Your task to perform on an android device: Show the shopping cart on newegg. Add asus rog to the cart on newegg Image 0: 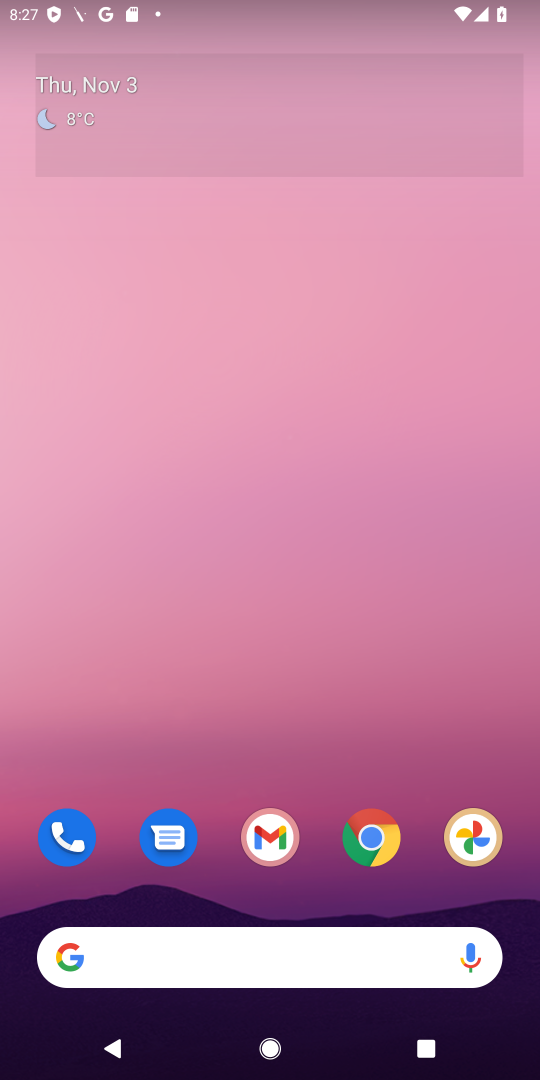
Step 0: click (367, 836)
Your task to perform on an android device: Show the shopping cart on newegg. Add asus rog to the cart on newegg Image 1: 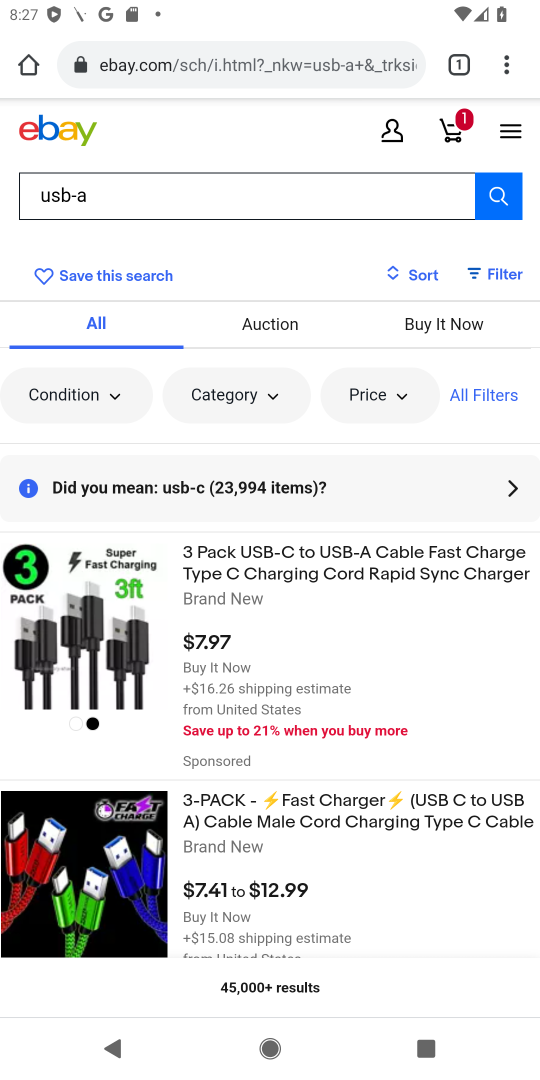
Step 1: click (237, 59)
Your task to perform on an android device: Show the shopping cart on newegg. Add asus rog to the cart on newegg Image 2: 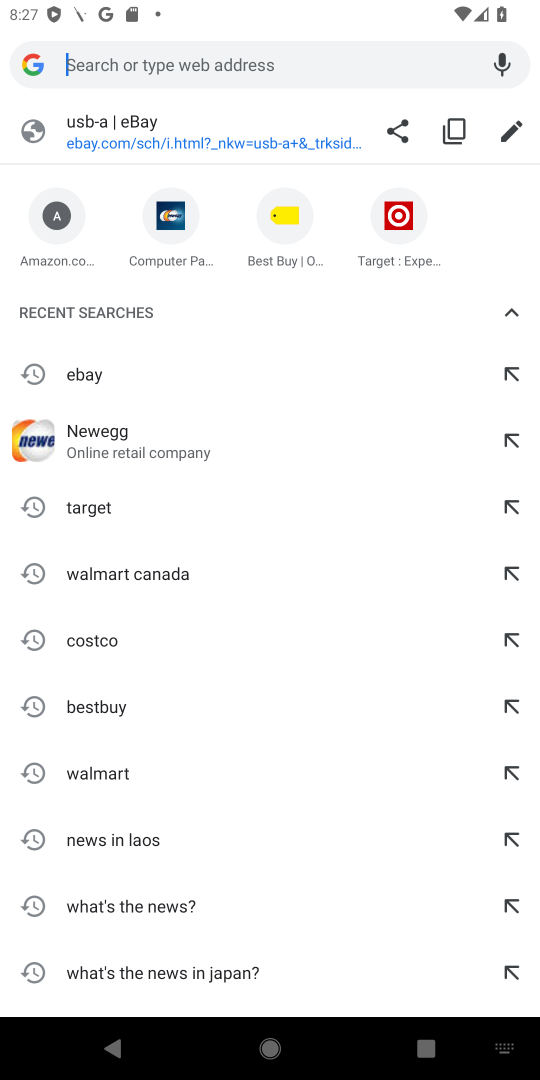
Step 2: type "newegg"
Your task to perform on an android device: Show the shopping cart on newegg. Add asus rog to the cart on newegg Image 3: 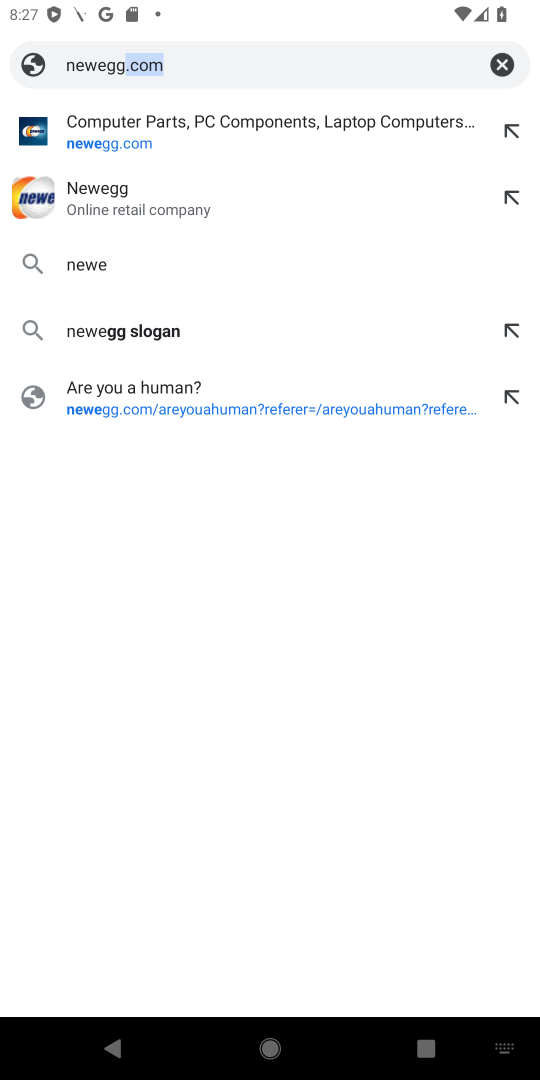
Step 3: press enter
Your task to perform on an android device: Show the shopping cart on newegg. Add asus rog to the cart on newegg Image 4: 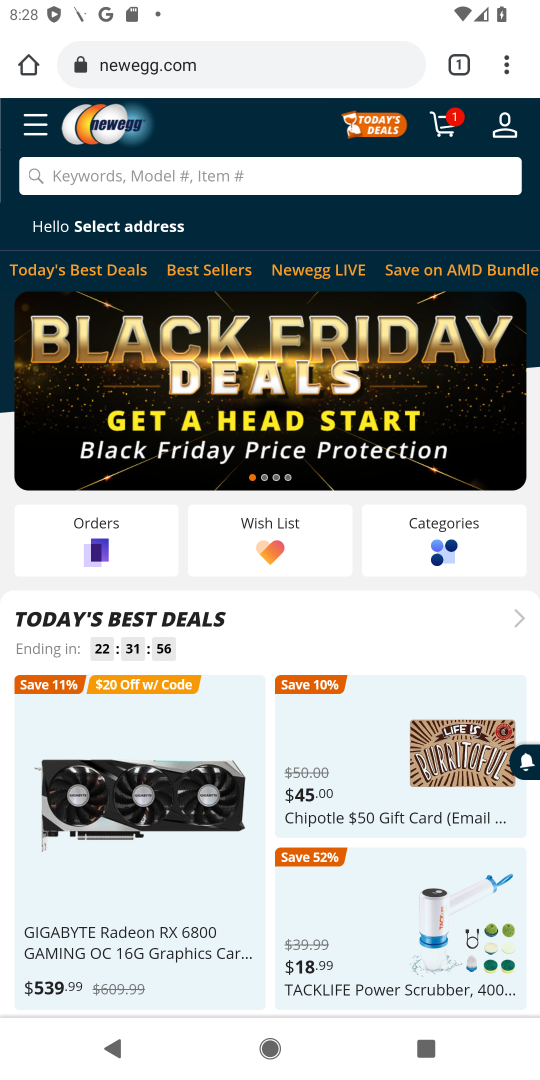
Step 4: click (365, 167)
Your task to perform on an android device: Show the shopping cart on newegg. Add asus rog to the cart on newegg Image 5: 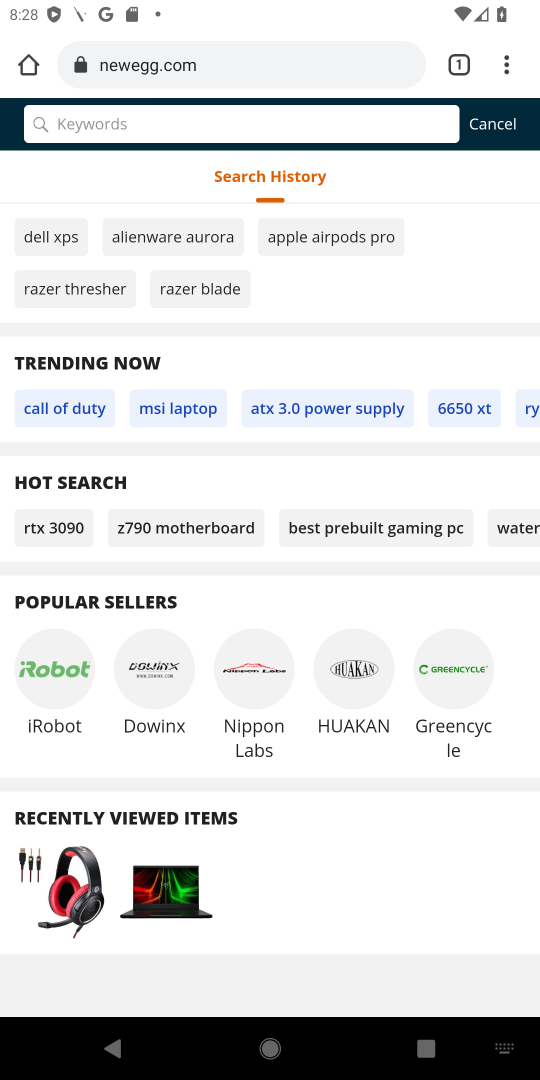
Step 5: type "asus rog"
Your task to perform on an android device: Show the shopping cart on newegg. Add asus rog to the cart on newegg Image 6: 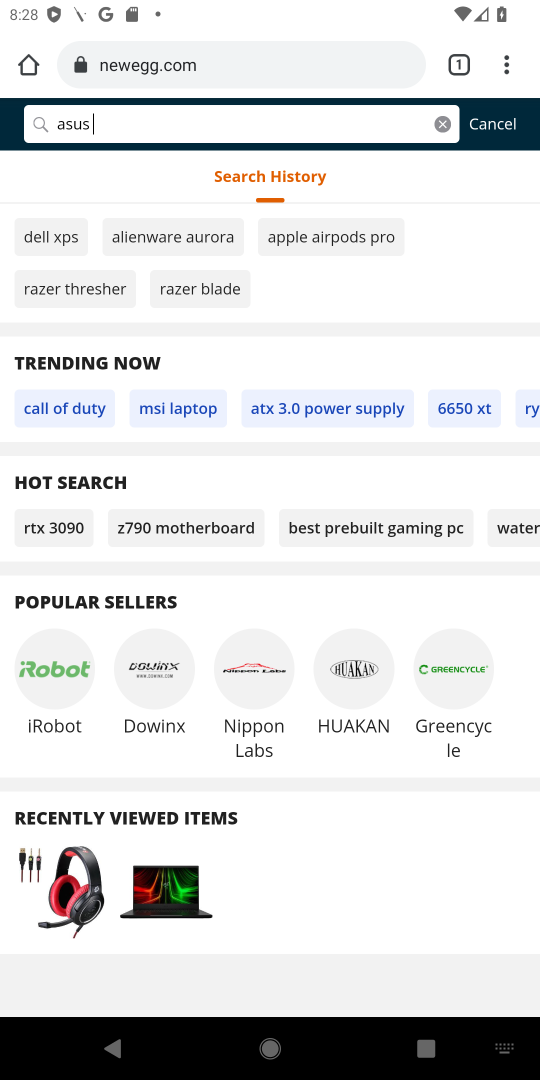
Step 6: press enter
Your task to perform on an android device: Show the shopping cart on newegg. Add asus rog to the cart on newegg Image 7: 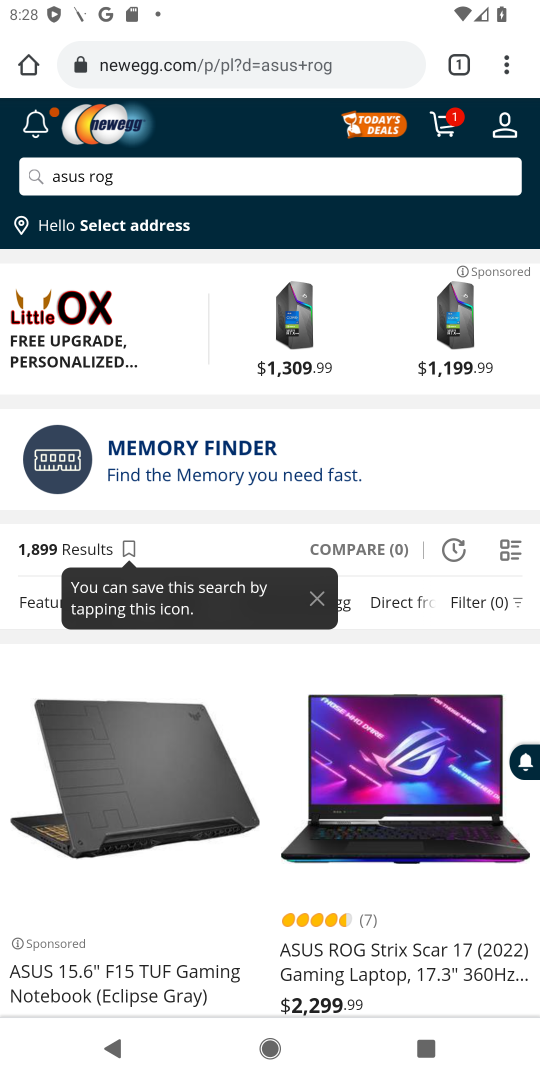
Step 7: drag from (156, 891) to (288, 596)
Your task to perform on an android device: Show the shopping cart on newegg. Add asus rog to the cart on newegg Image 8: 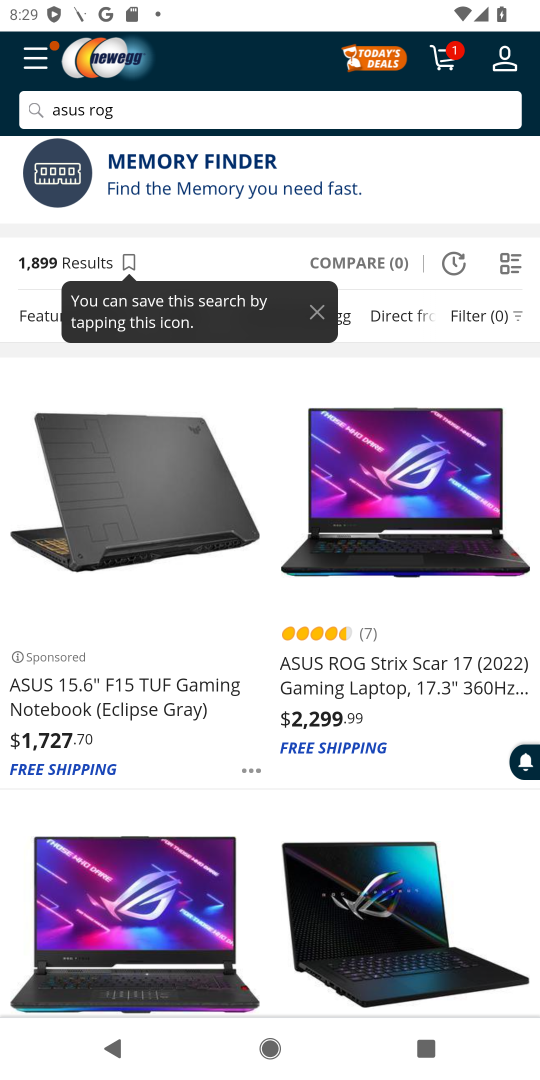
Step 8: click (417, 605)
Your task to perform on an android device: Show the shopping cart on newegg. Add asus rog to the cart on newegg Image 9: 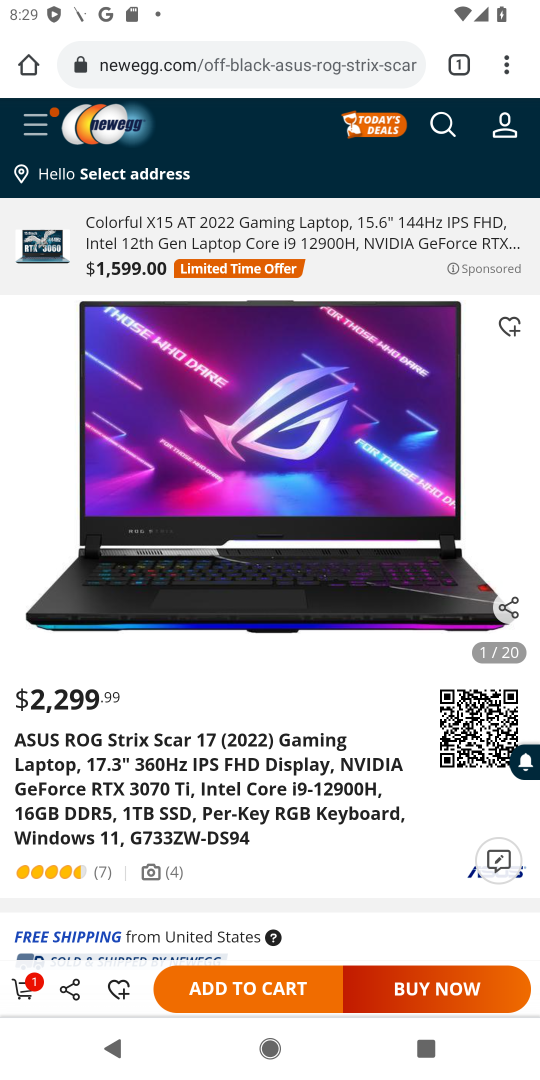
Step 9: click (247, 989)
Your task to perform on an android device: Show the shopping cart on newegg. Add asus rog to the cart on newegg Image 10: 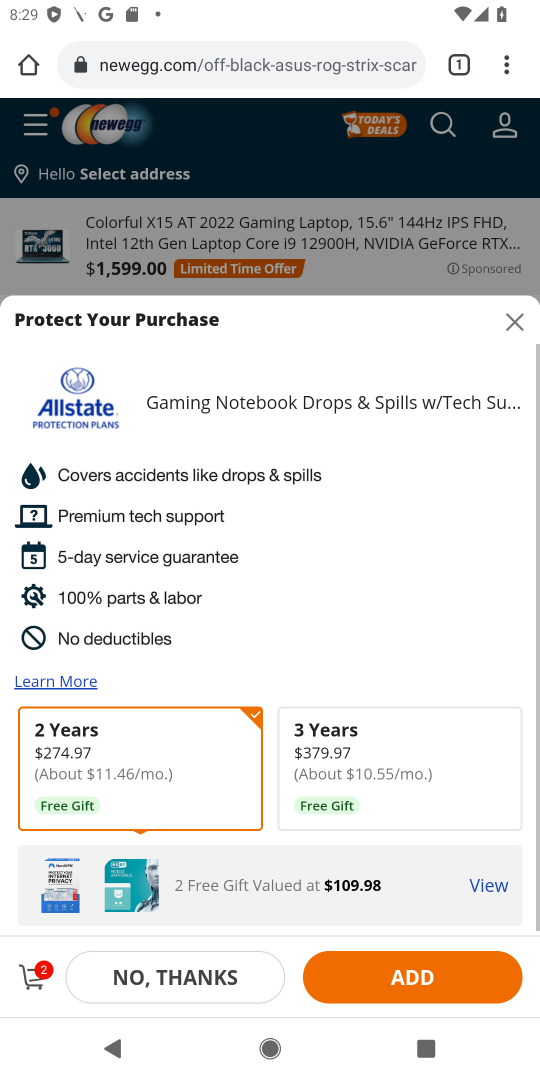
Step 10: click (230, 969)
Your task to perform on an android device: Show the shopping cart on newegg. Add asus rog to the cart on newegg Image 11: 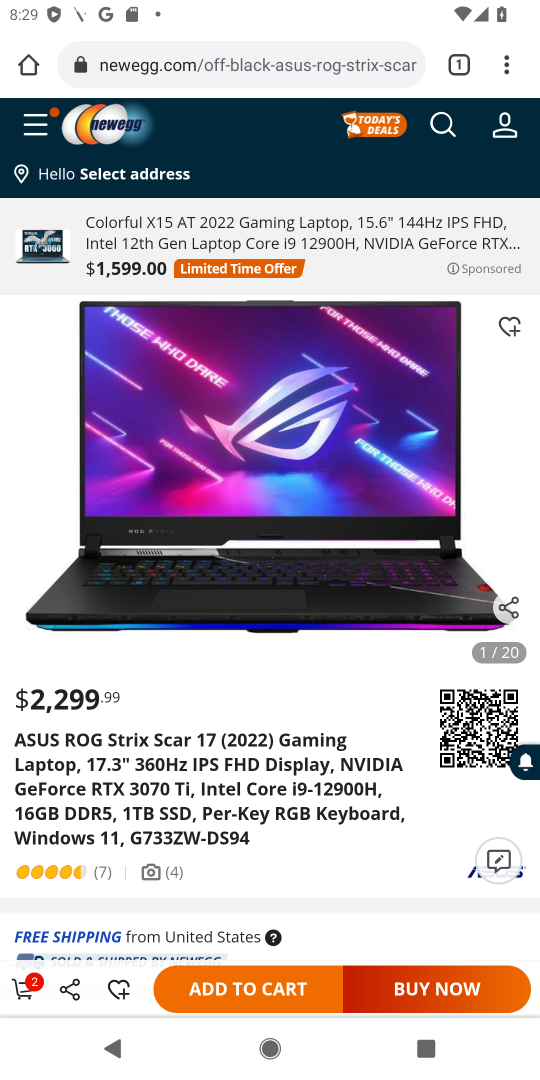
Step 11: click (30, 982)
Your task to perform on an android device: Show the shopping cart on newegg. Add asus rog to the cart on newegg Image 12: 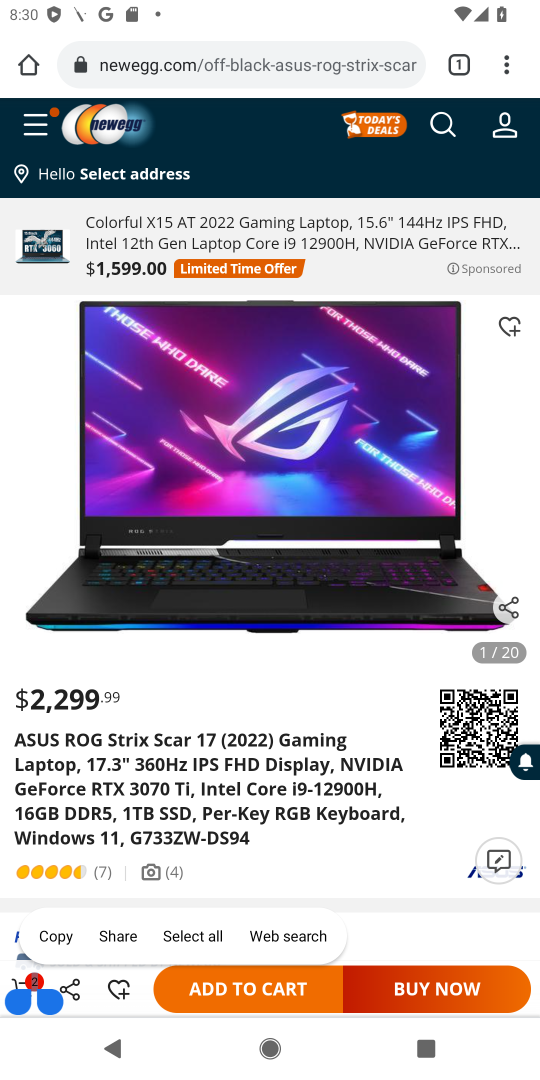
Step 12: click (30, 994)
Your task to perform on an android device: Show the shopping cart on newegg. Add asus rog to the cart on newegg Image 13: 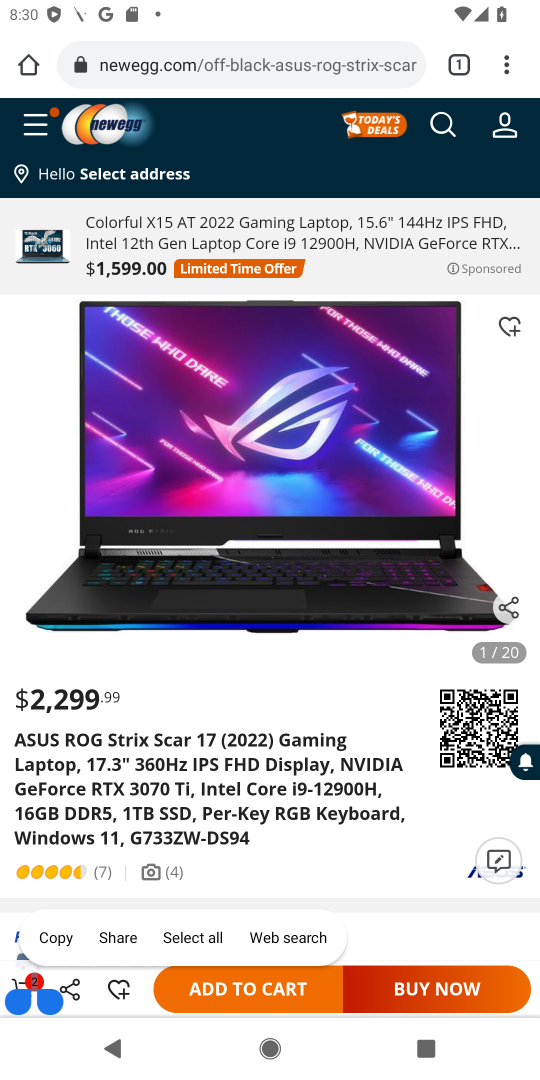
Step 13: click (40, 983)
Your task to perform on an android device: Show the shopping cart on newegg. Add asus rog to the cart on newegg Image 14: 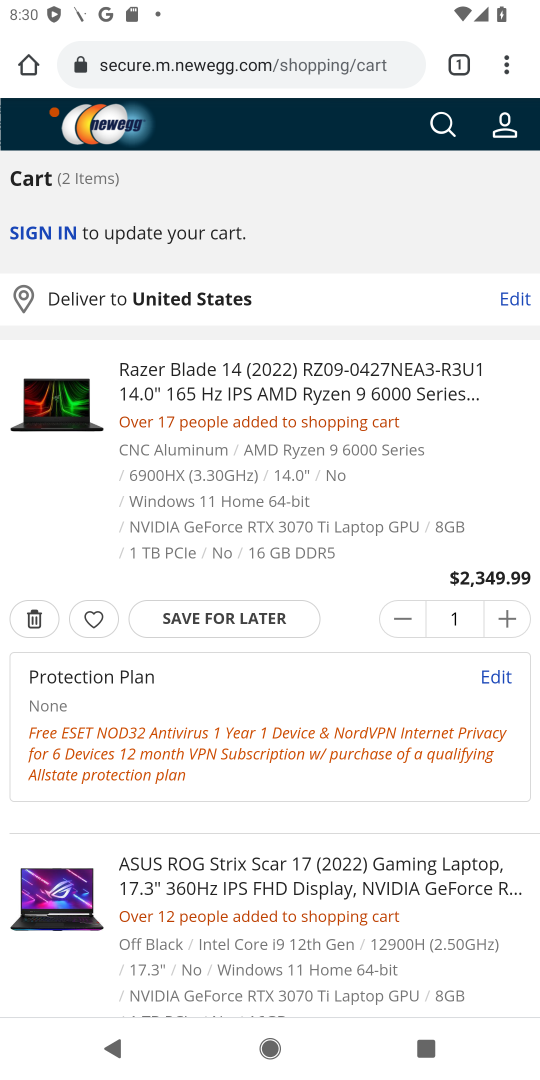
Step 14: task complete